Your task to perform on an android device: choose inbox layout in the gmail app Image 0: 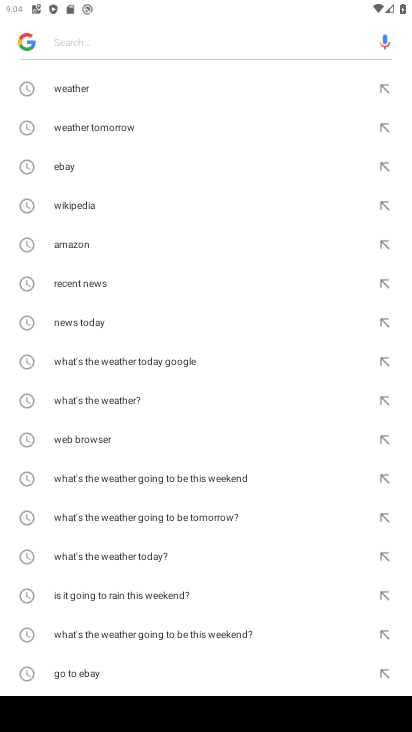
Step 0: press home button
Your task to perform on an android device: choose inbox layout in the gmail app Image 1: 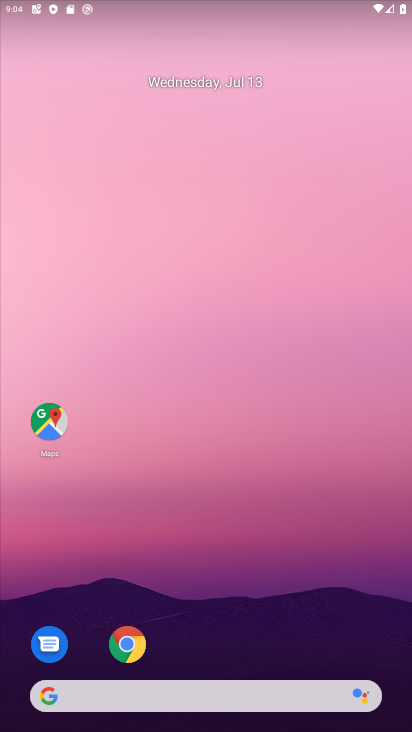
Step 1: click (186, 665)
Your task to perform on an android device: choose inbox layout in the gmail app Image 2: 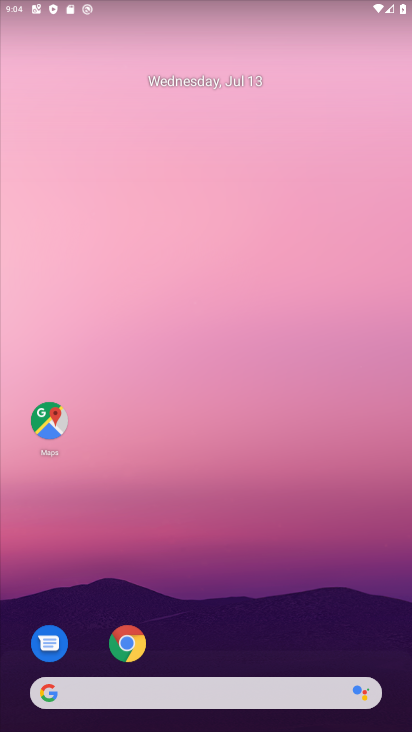
Step 2: drag from (173, 533) to (194, 1)
Your task to perform on an android device: choose inbox layout in the gmail app Image 3: 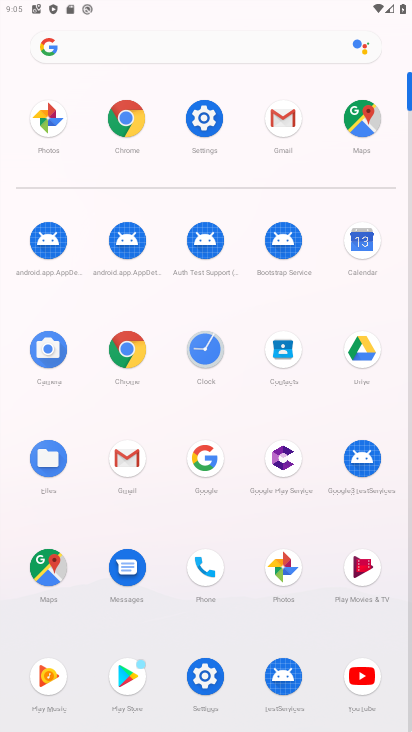
Step 3: click (128, 466)
Your task to perform on an android device: choose inbox layout in the gmail app Image 4: 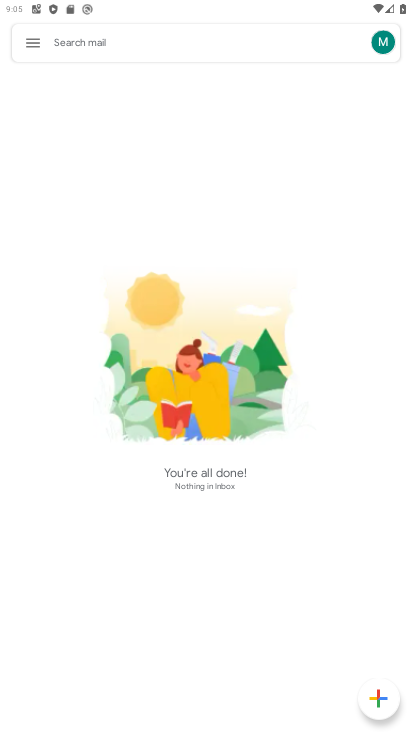
Step 4: click (32, 43)
Your task to perform on an android device: choose inbox layout in the gmail app Image 5: 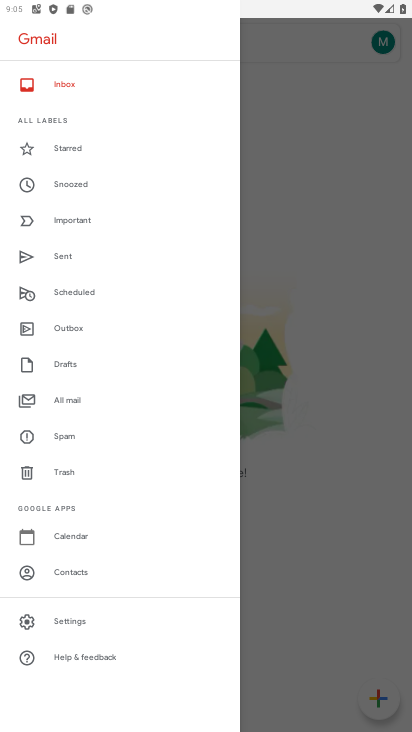
Step 5: click (63, 618)
Your task to perform on an android device: choose inbox layout in the gmail app Image 6: 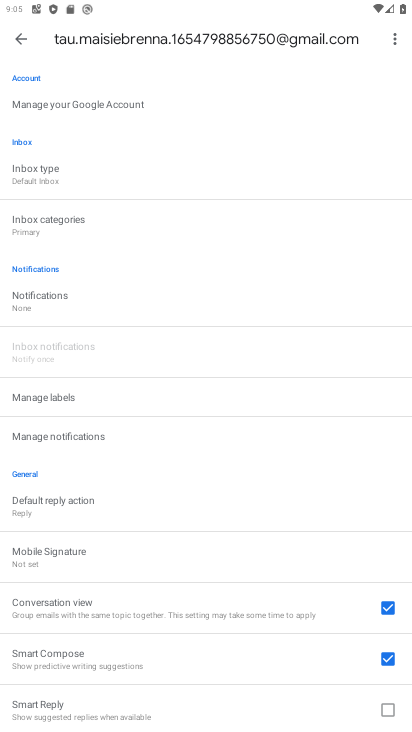
Step 6: click (35, 173)
Your task to perform on an android device: choose inbox layout in the gmail app Image 7: 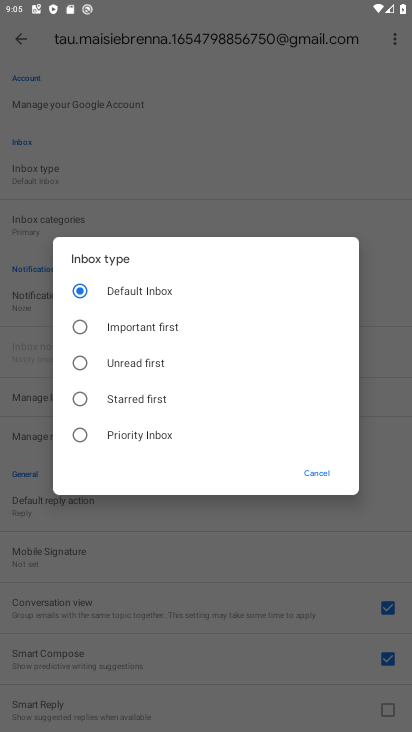
Step 7: click (80, 430)
Your task to perform on an android device: choose inbox layout in the gmail app Image 8: 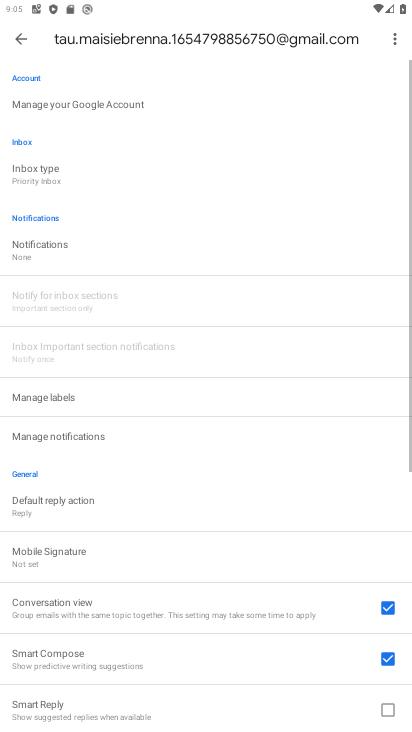
Step 8: task complete